Your task to perform on an android device: turn off picture-in-picture Image 0: 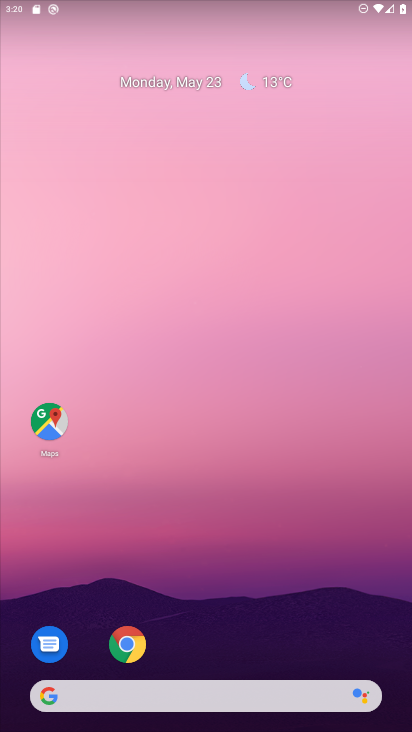
Step 0: drag from (126, 643) to (153, 579)
Your task to perform on an android device: turn off picture-in-picture Image 1: 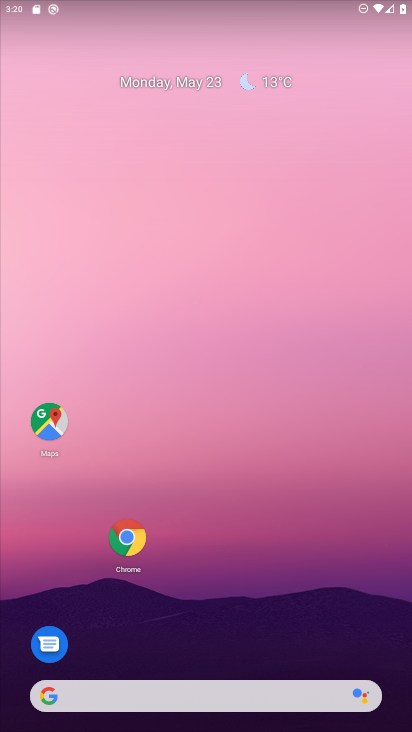
Step 1: click (135, 538)
Your task to perform on an android device: turn off picture-in-picture Image 2: 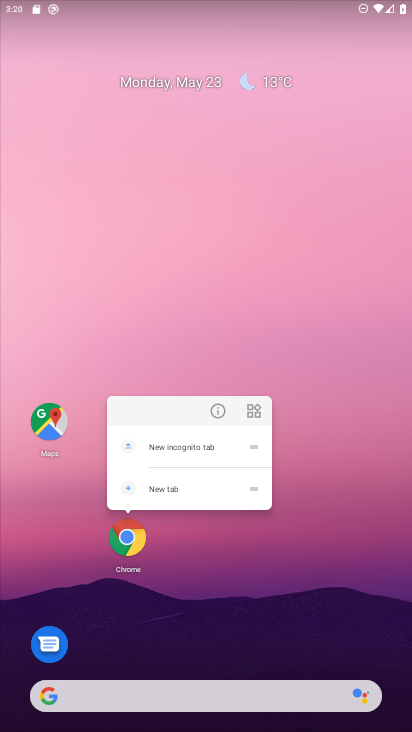
Step 2: click (222, 410)
Your task to perform on an android device: turn off picture-in-picture Image 3: 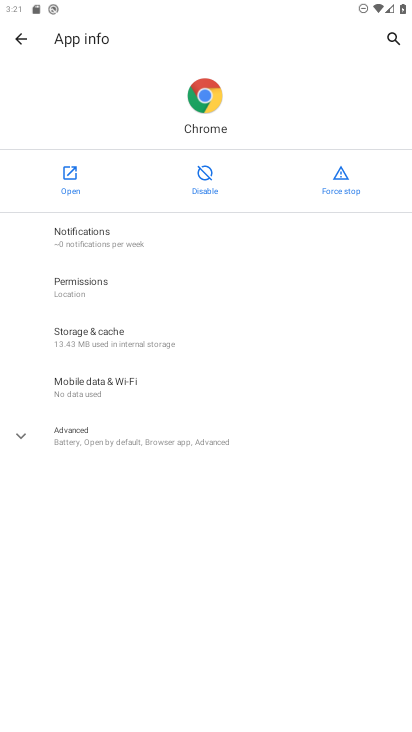
Step 3: click (111, 435)
Your task to perform on an android device: turn off picture-in-picture Image 4: 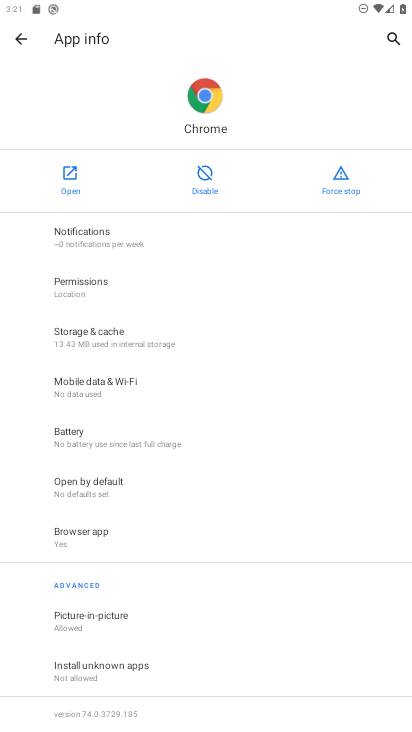
Step 4: drag from (145, 602) to (193, 115)
Your task to perform on an android device: turn off picture-in-picture Image 5: 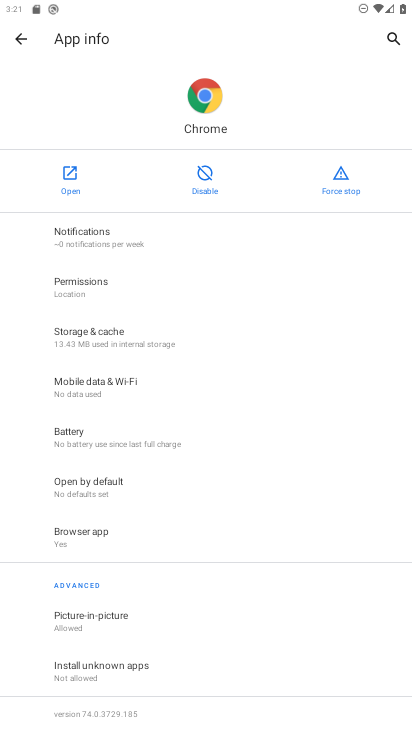
Step 5: click (109, 623)
Your task to perform on an android device: turn off picture-in-picture Image 6: 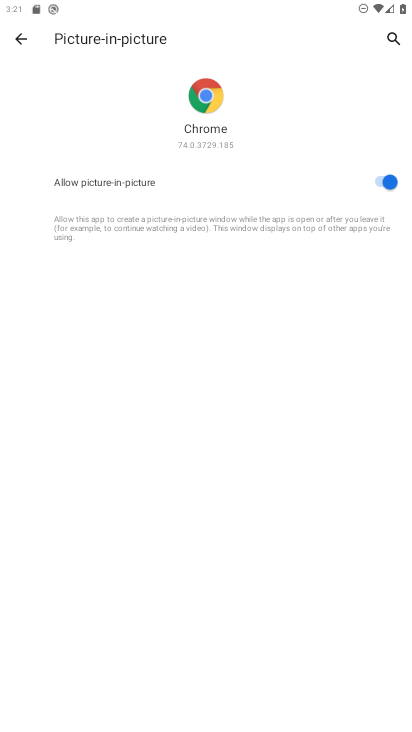
Step 6: click (384, 178)
Your task to perform on an android device: turn off picture-in-picture Image 7: 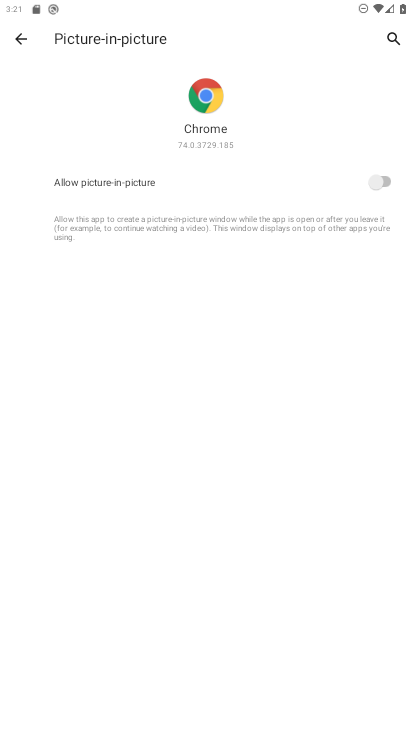
Step 7: task complete